Your task to perform on an android device: Search for Mexican restaurants on Maps Image 0: 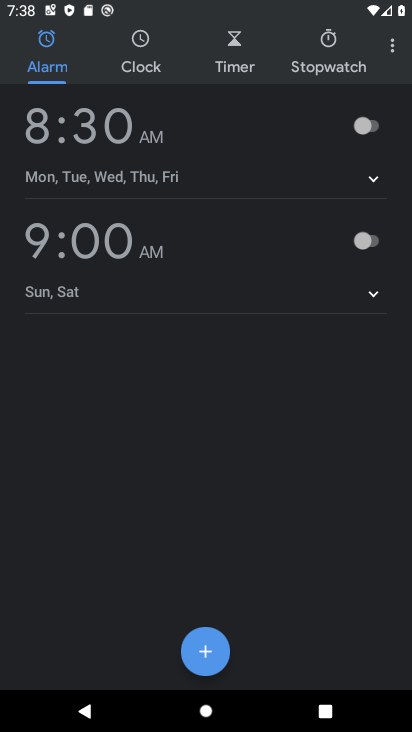
Step 0: press home button
Your task to perform on an android device: Search for Mexican restaurants on Maps Image 1: 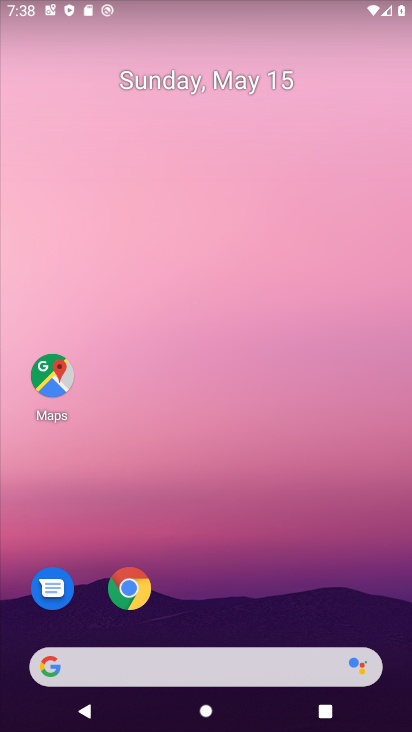
Step 1: click (46, 370)
Your task to perform on an android device: Search for Mexican restaurants on Maps Image 2: 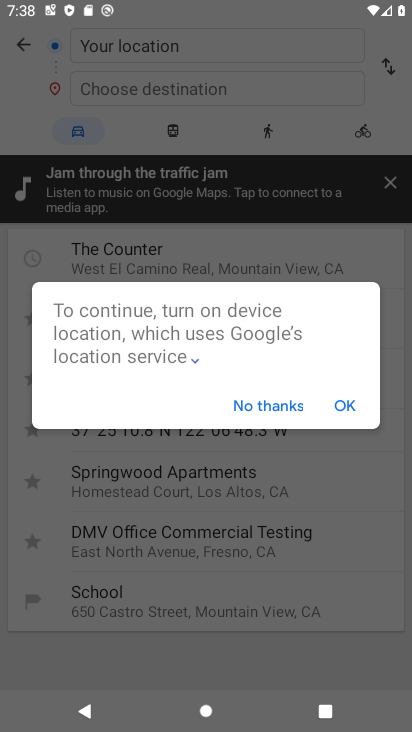
Step 2: click (338, 402)
Your task to perform on an android device: Search for Mexican restaurants on Maps Image 3: 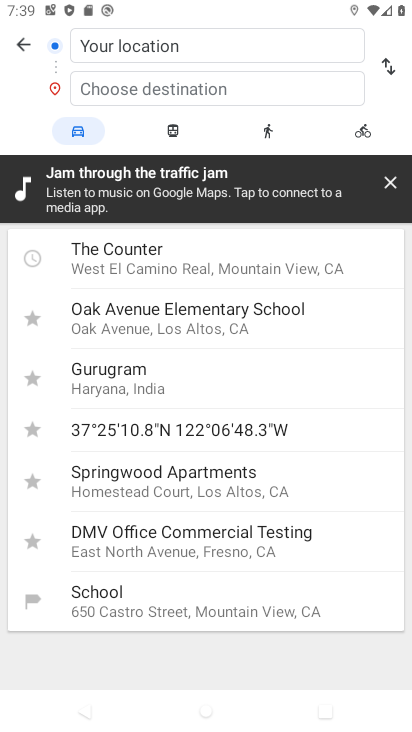
Step 3: click (19, 46)
Your task to perform on an android device: Search for Mexican restaurants on Maps Image 4: 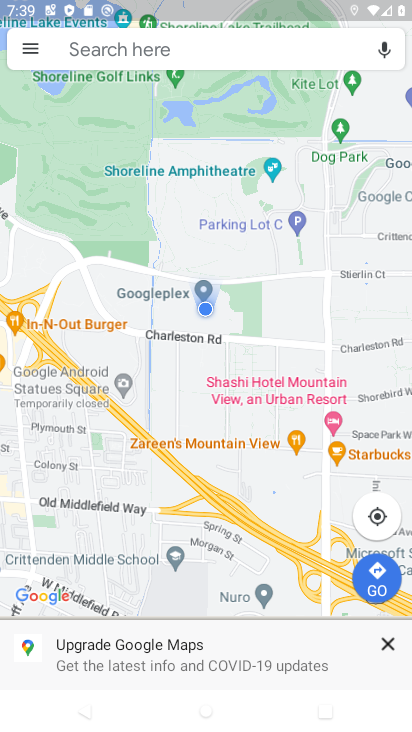
Step 4: click (129, 51)
Your task to perform on an android device: Search for Mexican restaurants on Maps Image 5: 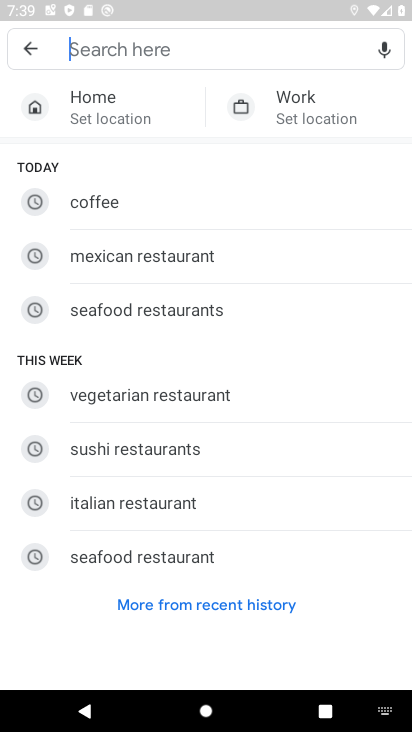
Step 5: click (151, 253)
Your task to perform on an android device: Search for Mexican restaurants on Maps Image 6: 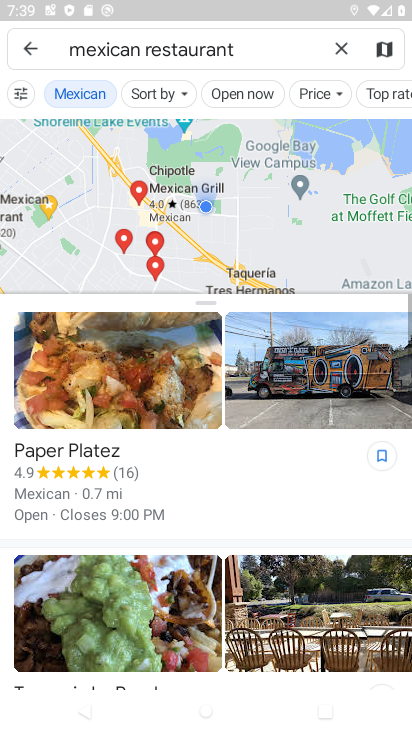
Step 6: task complete